Your task to perform on an android device: turn smart compose on in the gmail app Image 0: 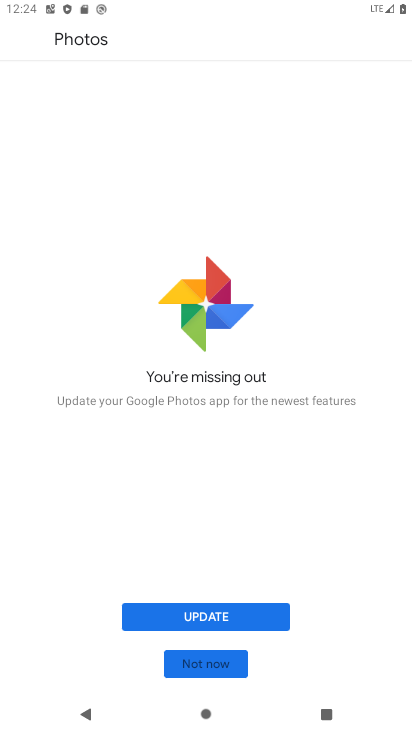
Step 0: press back button
Your task to perform on an android device: turn smart compose on in the gmail app Image 1: 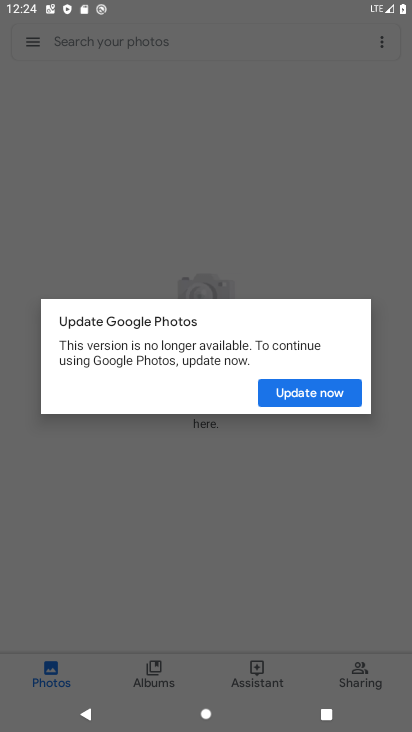
Step 1: press back button
Your task to perform on an android device: turn smart compose on in the gmail app Image 2: 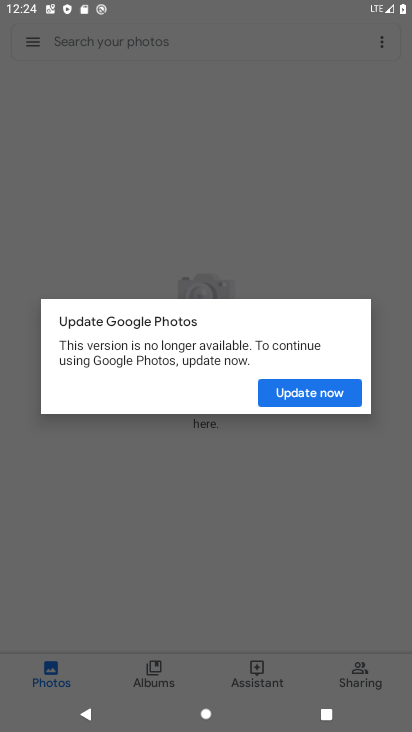
Step 2: press home button
Your task to perform on an android device: turn smart compose on in the gmail app Image 3: 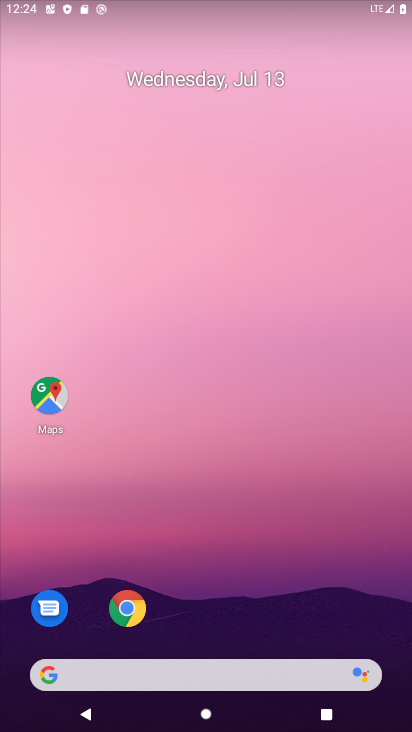
Step 3: drag from (231, 646) to (370, 4)
Your task to perform on an android device: turn smart compose on in the gmail app Image 4: 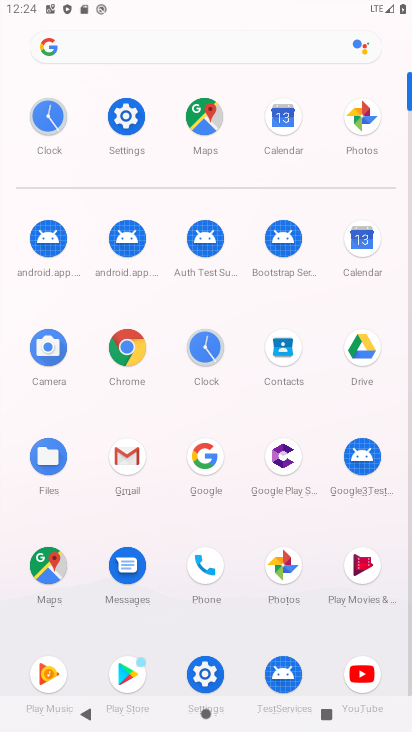
Step 4: click (120, 454)
Your task to perform on an android device: turn smart compose on in the gmail app Image 5: 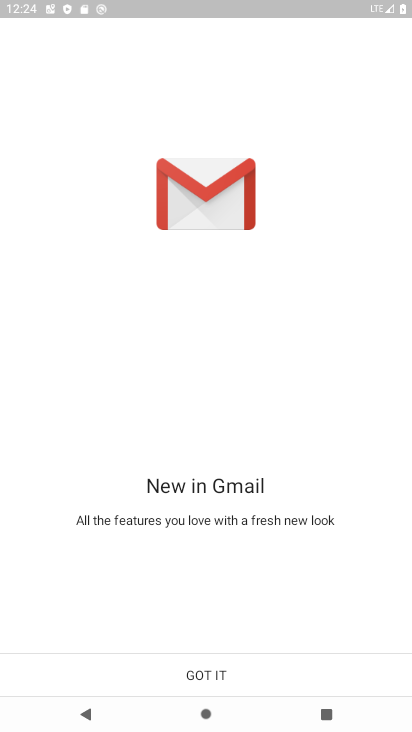
Step 5: click (203, 668)
Your task to perform on an android device: turn smart compose on in the gmail app Image 6: 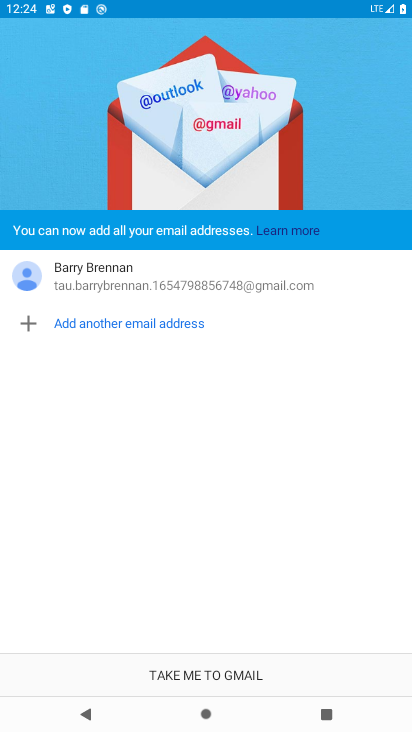
Step 6: click (201, 670)
Your task to perform on an android device: turn smart compose on in the gmail app Image 7: 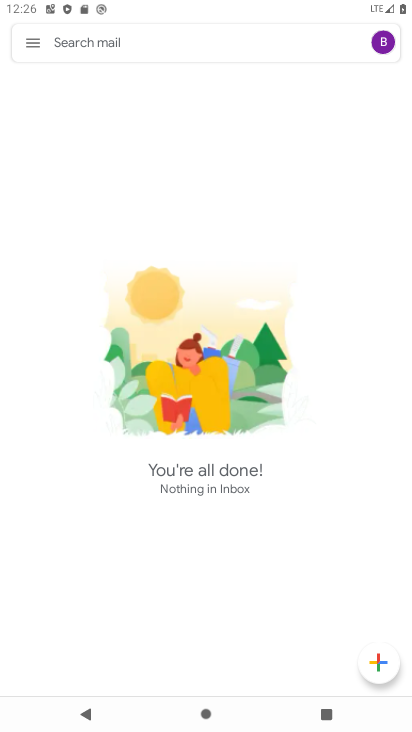
Step 7: click (24, 43)
Your task to perform on an android device: turn smart compose on in the gmail app Image 8: 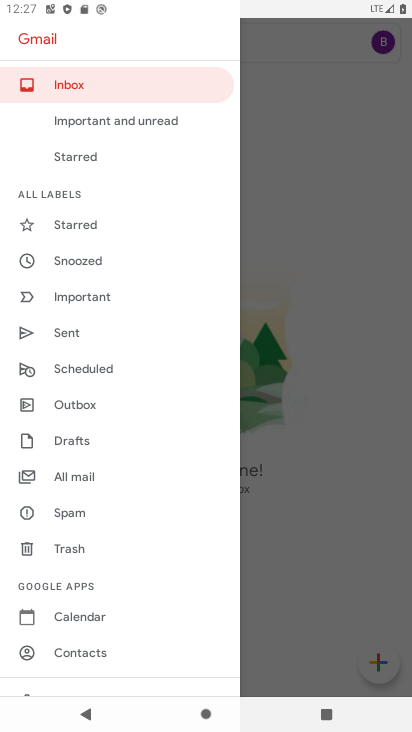
Step 8: drag from (70, 618) to (173, 160)
Your task to perform on an android device: turn smart compose on in the gmail app Image 9: 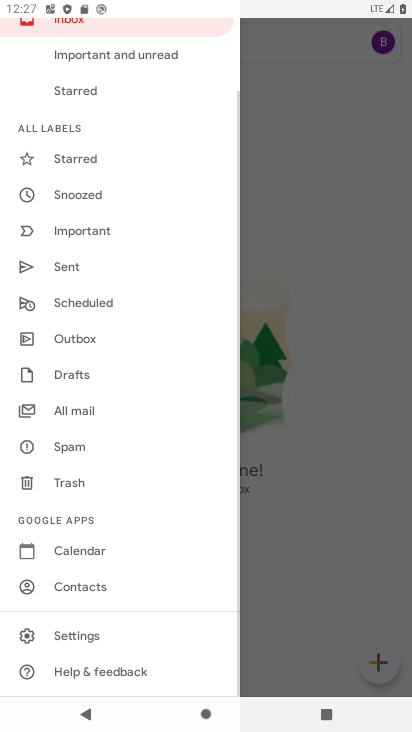
Step 9: click (88, 632)
Your task to perform on an android device: turn smart compose on in the gmail app Image 10: 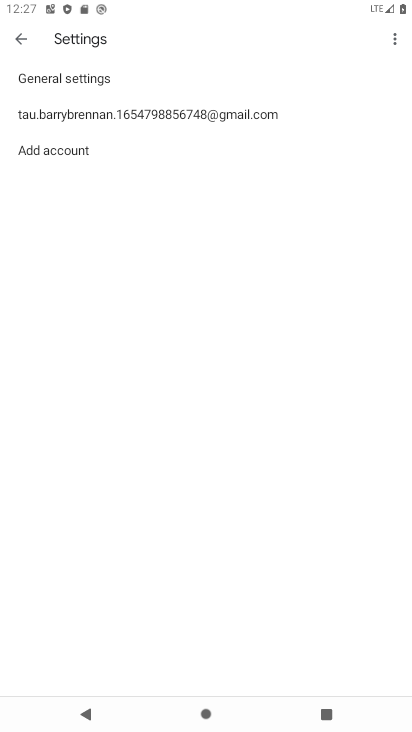
Step 10: click (194, 127)
Your task to perform on an android device: turn smart compose on in the gmail app Image 11: 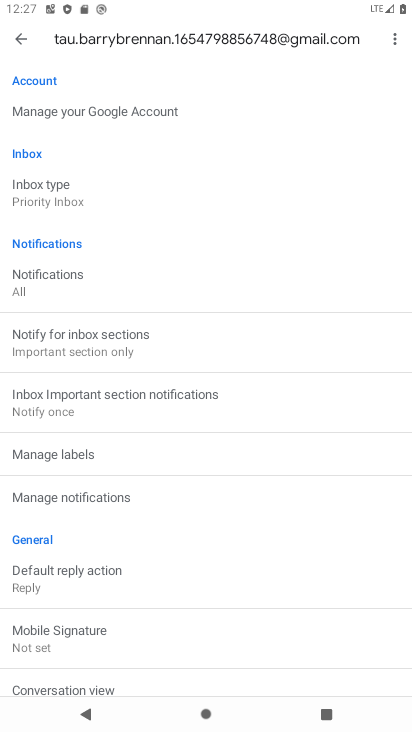
Step 11: task complete